Your task to perform on an android device: Search for "usb-a" on bestbuy, select the first entry, and add it to the cart. Image 0: 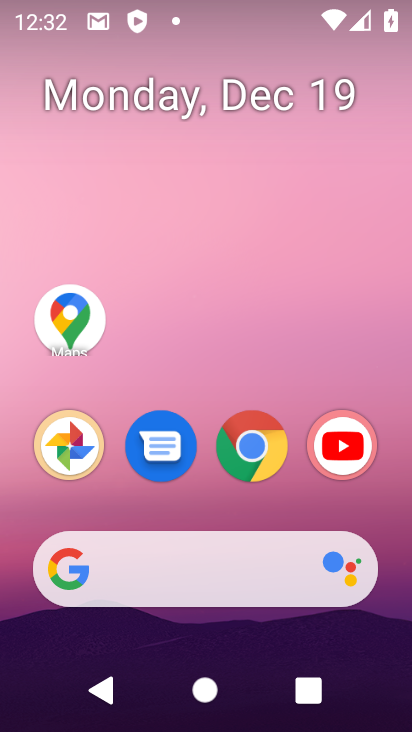
Step 0: click (236, 449)
Your task to perform on an android device: Search for "usb-a" on bestbuy, select the first entry, and add it to the cart. Image 1: 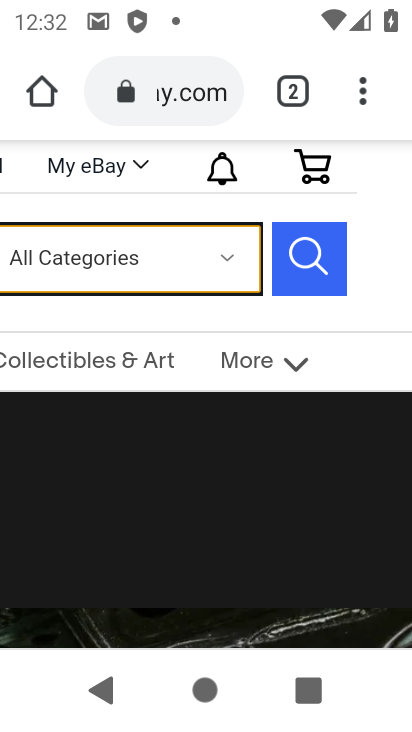
Step 1: click (140, 102)
Your task to perform on an android device: Search for "usb-a" on bestbuy, select the first entry, and add it to the cart. Image 2: 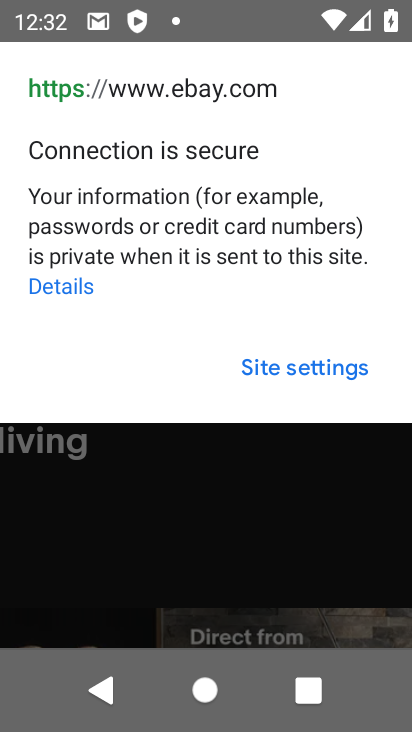
Step 2: type "bestbuy"
Your task to perform on an android device: Search for "usb-a" on bestbuy, select the first entry, and add it to the cart. Image 3: 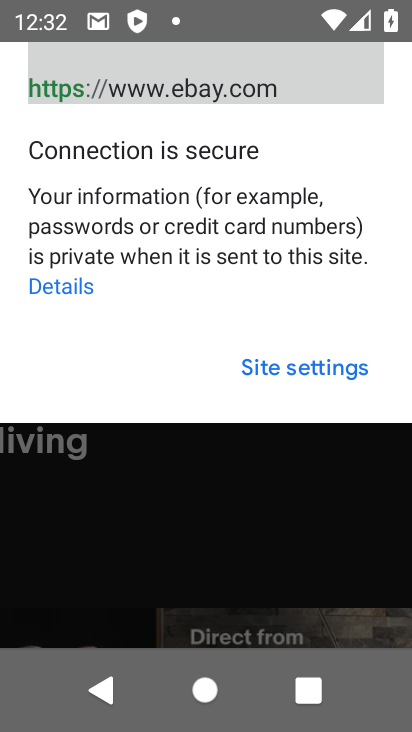
Step 3: click (212, 517)
Your task to perform on an android device: Search for "usb-a" on bestbuy, select the first entry, and add it to the cart. Image 4: 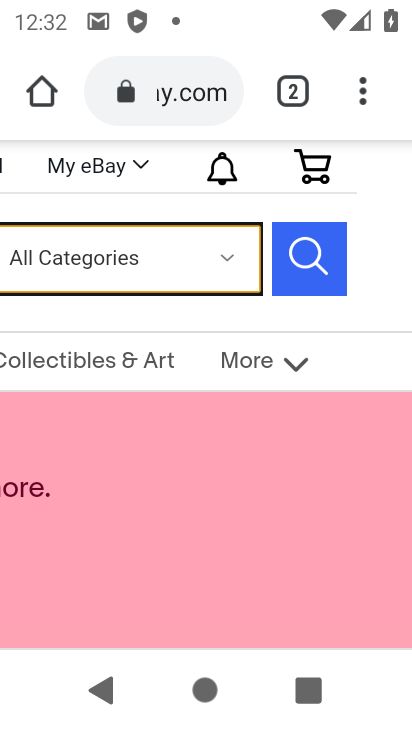
Step 4: click (192, 95)
Your task to perform on an android device: Search for "usb-a" on bestbuy, select the first entry, and add it to the cart. Image 5: 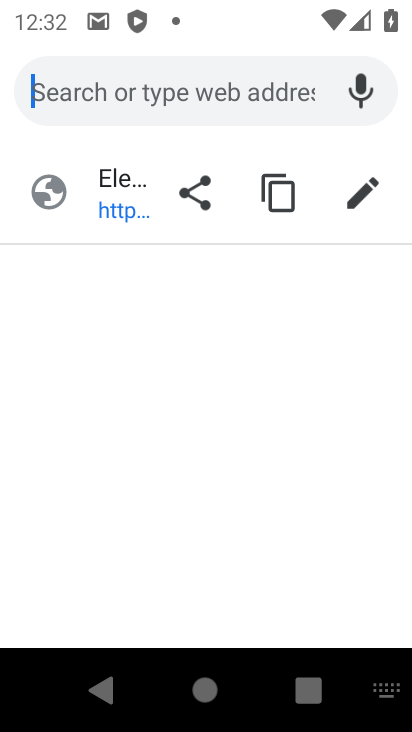
Step 5: type "bestbuy"
Your task to perform on an android device: Search for "usb-a" on bestbuy, select the first entry, and add it to the cart. Image 6: 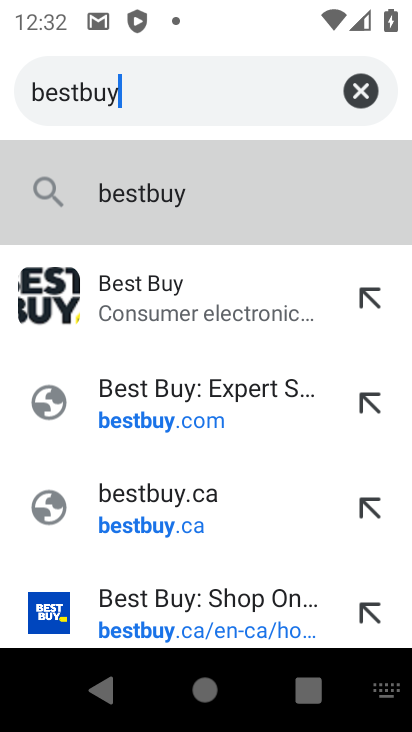
Step 6: click (200, 294)
Your task to perform on an android device: Search for "usb-a" on bestbuy, select the first entry, and add it to the cart. Image 7: 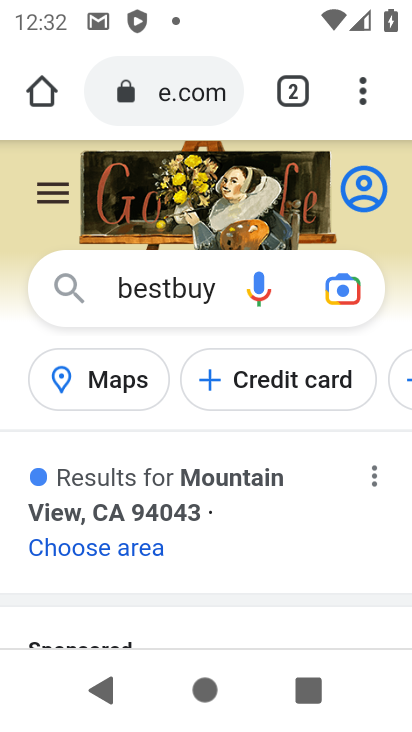
Step 7: click (176, 630)
Your task to perform on an android device: Search for "usb-a" on bestbuy, select the first entry, and add it to the cart. Image 8: 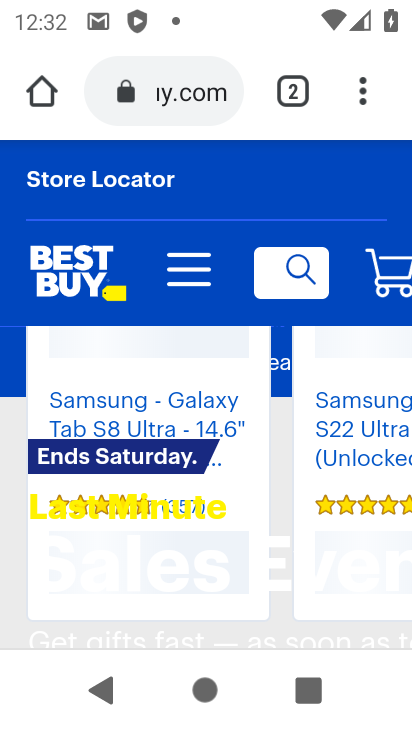
Step 8: click (285, 278)
Your task to perform on an android device: Search for "usb-a" on bestbuy, select the first entry, and add it to the cart. Image 9: 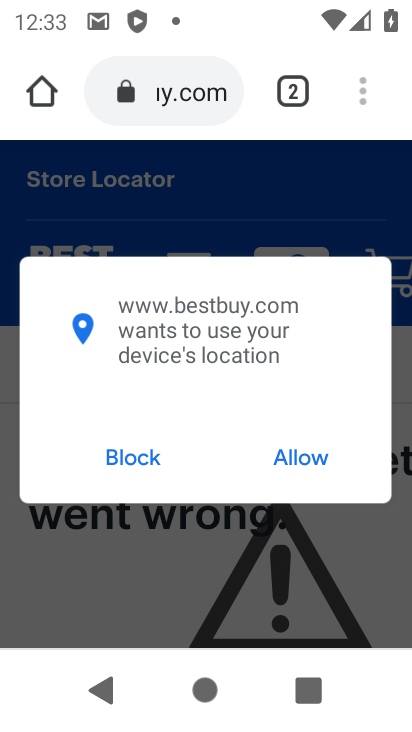
Step 9: type "usb-a"
Your task to perform on an android device: Search for "usb-a" on bestbuy, select the first entry, and add it to the cart. Image 10: 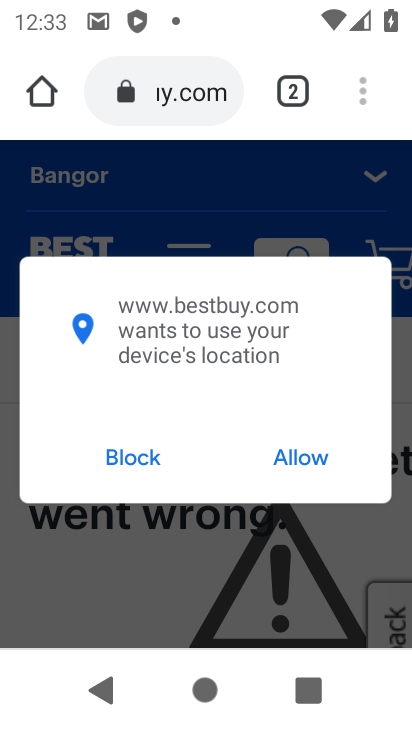
Step 10: click (307, 460)
Your task to perform on an android device: Search for "usb-a" on bestbuy, select the first entry, and add it to the cart. Image 11: 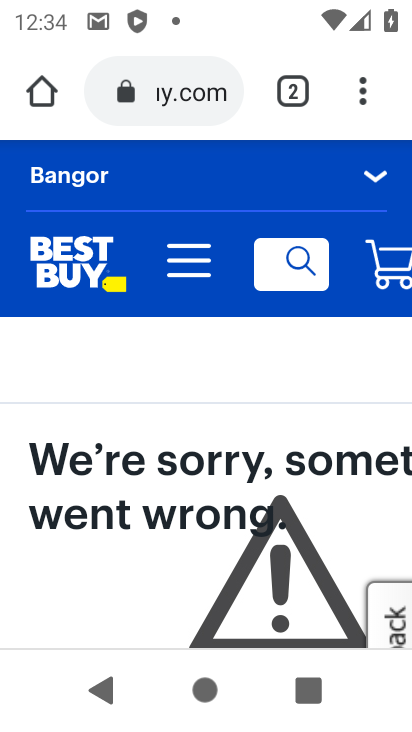
Step 11: click (294, 275)
Your task to perform on an android device: Search for "usb-a" on bestbuy, select the first entry, and add it to the cart. Image 12: 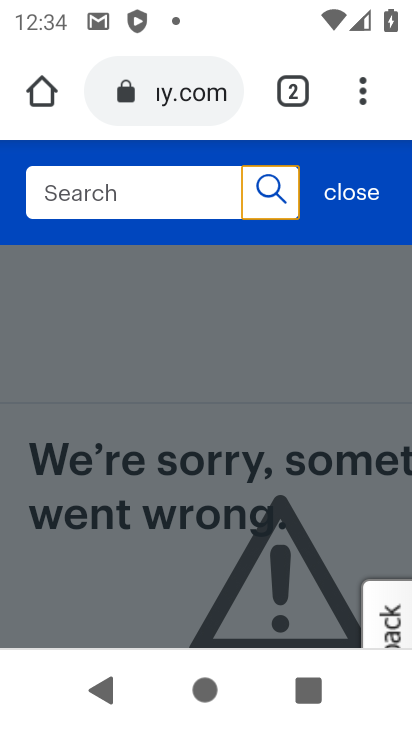
Step 12: type "usb-a"
Your task to perform on an android device: Search for "usb-a" on bestbuy, select the first entry, and add it to the cart. Image 13: 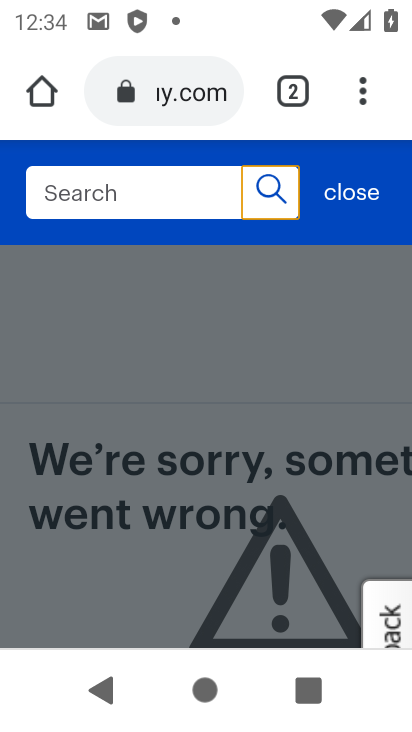
Step 13: task complete